Your task to perform on an android device: change text size in settings app Image 0: 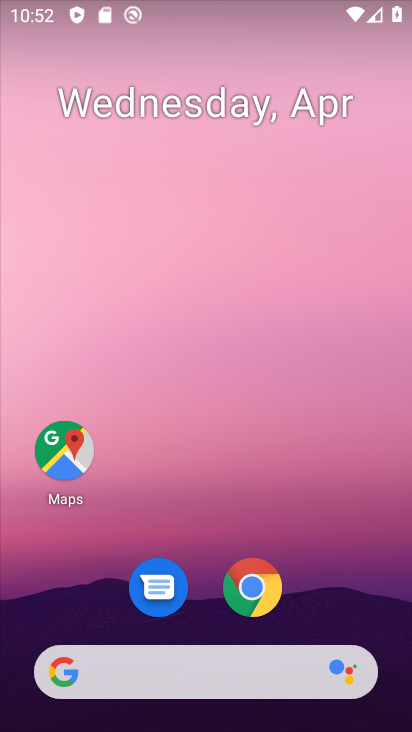
Step 0: drag from (197, 521) to (300, 42)
Your task to perform on an android device: change text size in settings app Image 1: 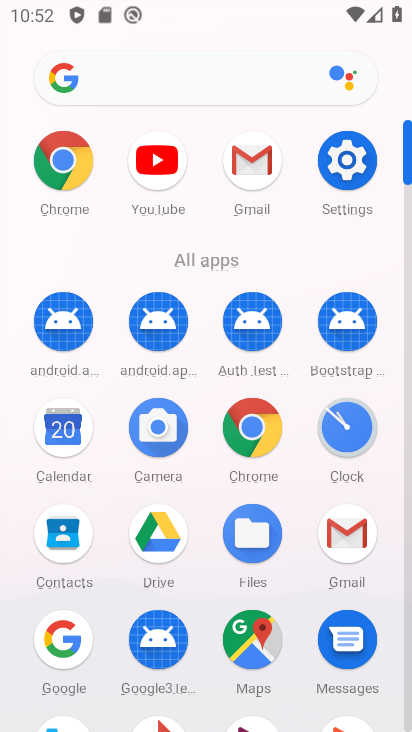
Step 1: click (350, 163)
Your task to perform on an android device: change text size in settings app Image 2: 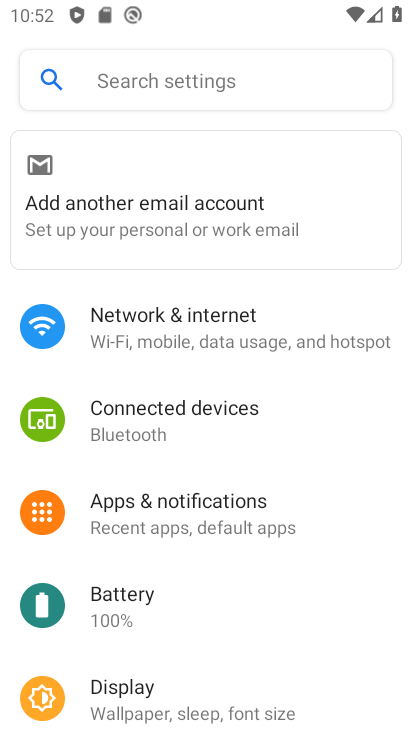
Step 2: click (151, 84)
Your task to perform on an android device: change text size in settings app Image 3: 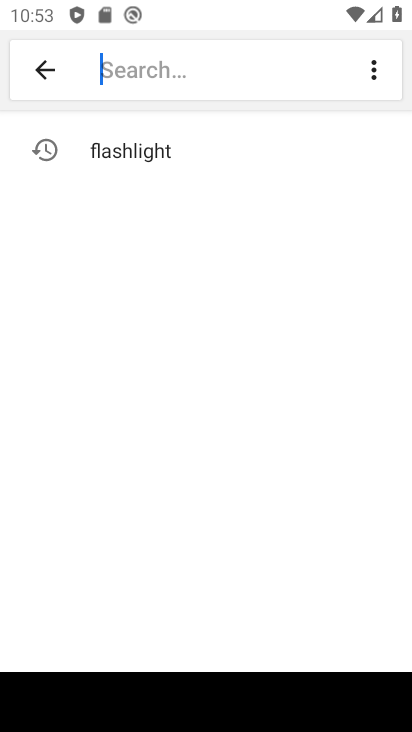
Step 3: type "text size"
Your task to perform on an android device: change text size in settings app Image 4: 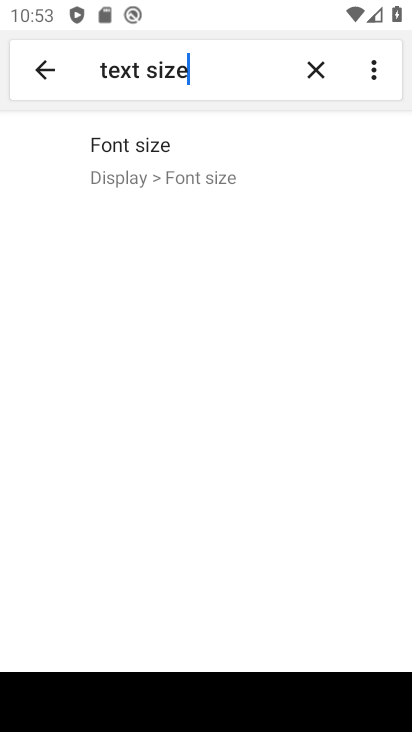
Step 4: click (232, 149)
Your task to perform on an android device: change text size in settings app Image 5: 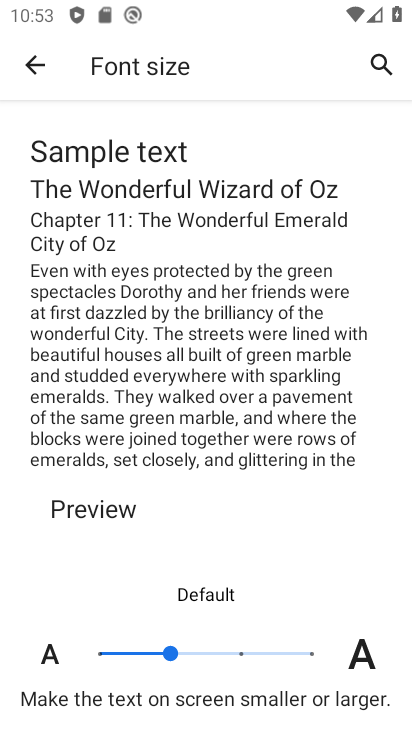
Step 5: task complete